Your task to perform on an android device: snooze an email in the gmail app Image 0: 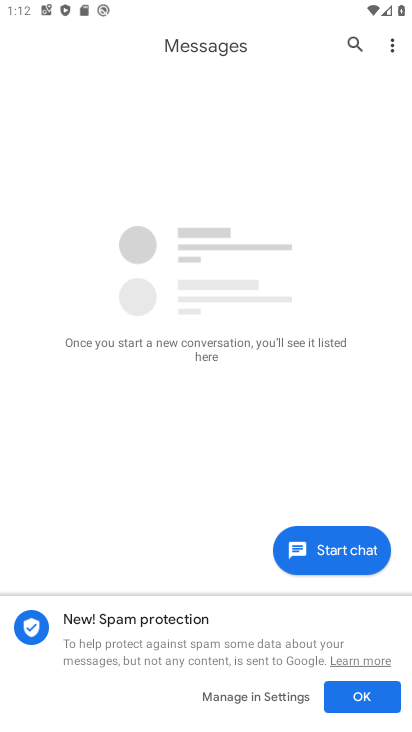
Step 0: click (368, 698)
Your task to perform on an android device: snooze an email in the gmail app Image 1: 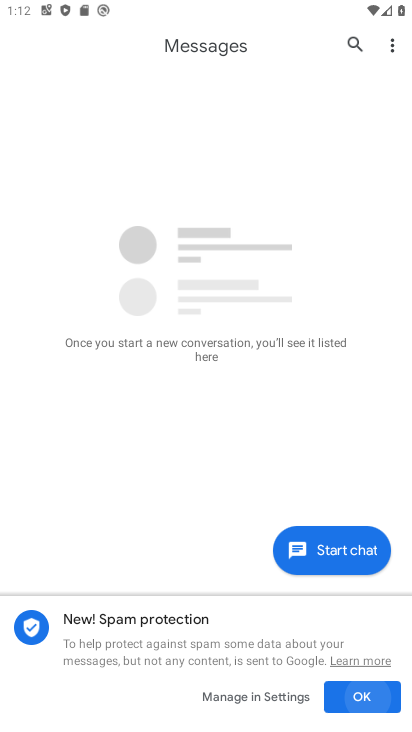
Step 1: click (366, 696)
Your task to perform on an android device: snooze an email in the gmail app Image 2: 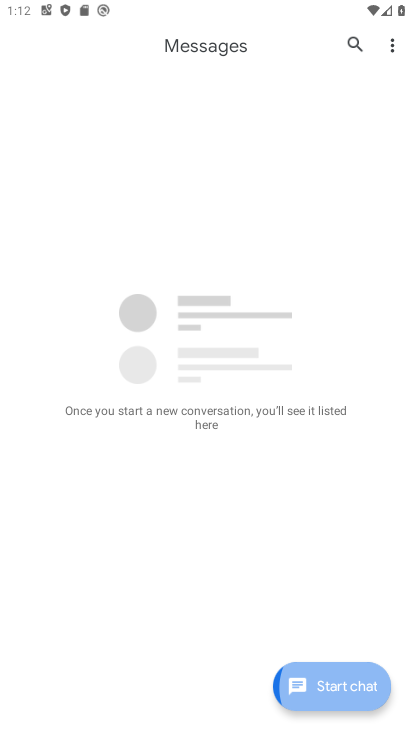
Step 2: click (365, 695)
Your task to perform on an android device: snooze an email in the gmail app Image 3: 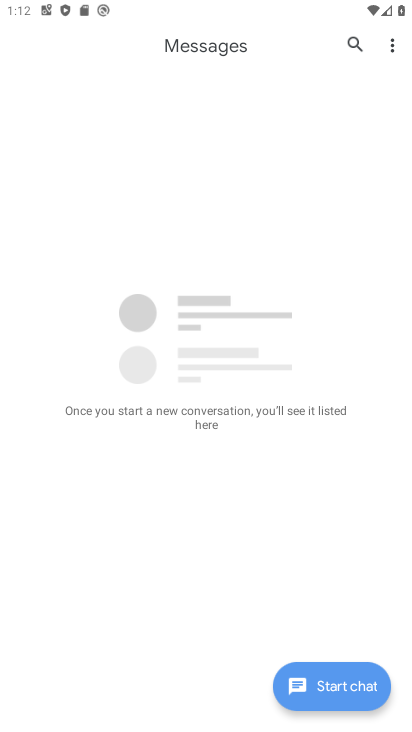
Step 3: click (364, 694)
Your task to perform on an android device: snooze an email in the gmail app Image 4: 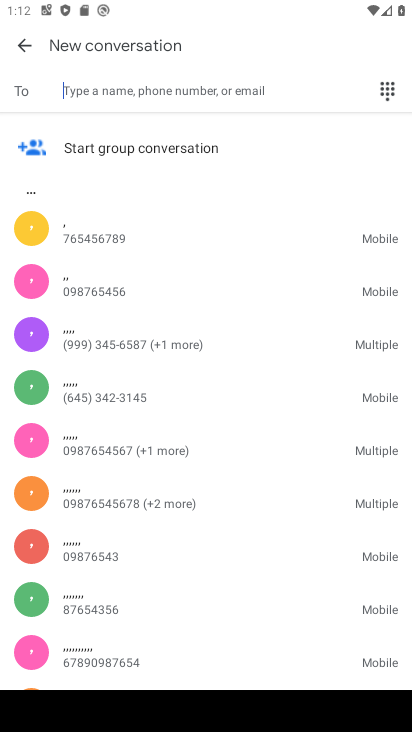
Step 4: press back button
Your task to perform on an android device: snooze an email in the gmail app Image 5: 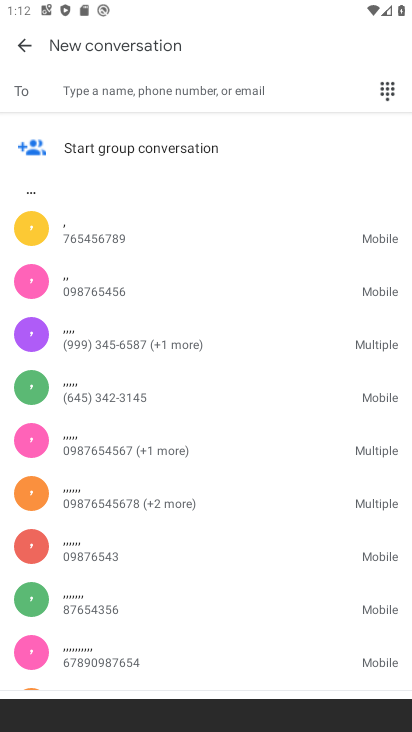
Step 5: press back button
Your task to perform on an android device: snooze an email in the gmail app Image 6: 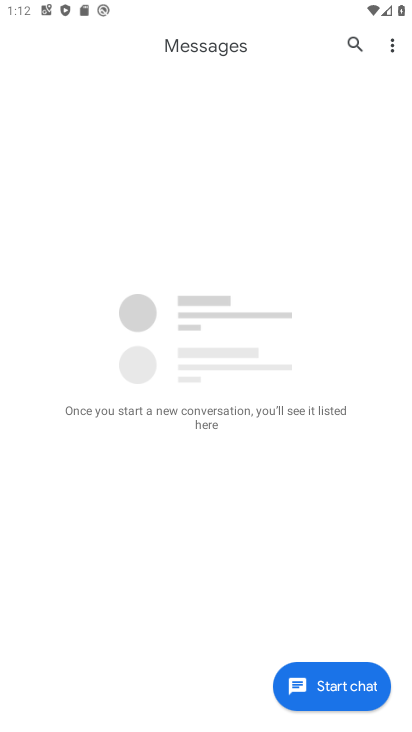
Step 6: press back button
Your task to perform on an android device: snooze an email in the gmail app Image 7: 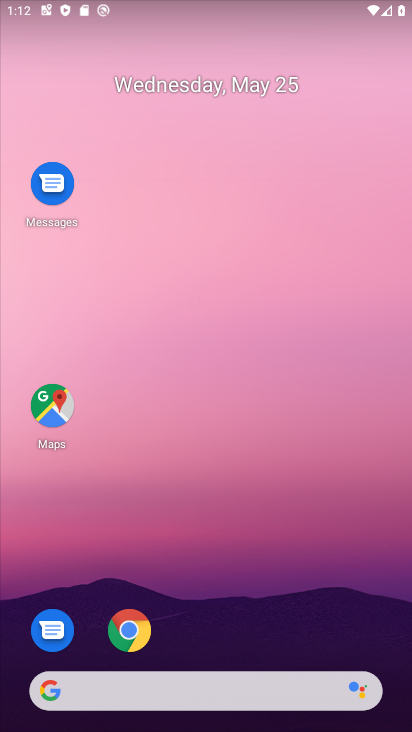
Step 7: drag from (312, 629) to (100, 72)
Your task to perform on an android device: snooze an email in the gmail app Image 8: 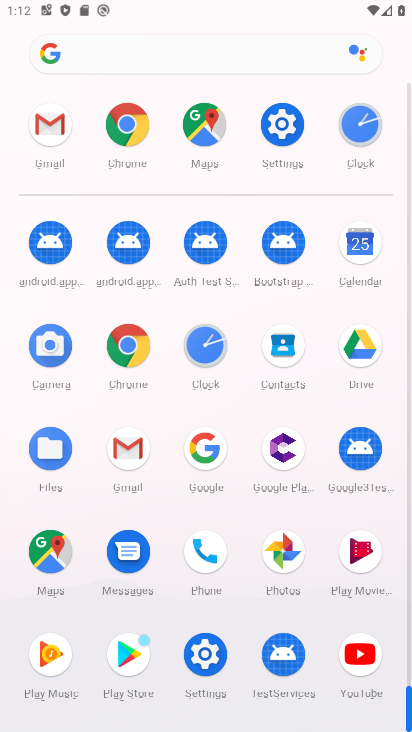
Step 8: click (127, 451)
Your task to perform on an android device: snooze an email in the gmail app Image 9: 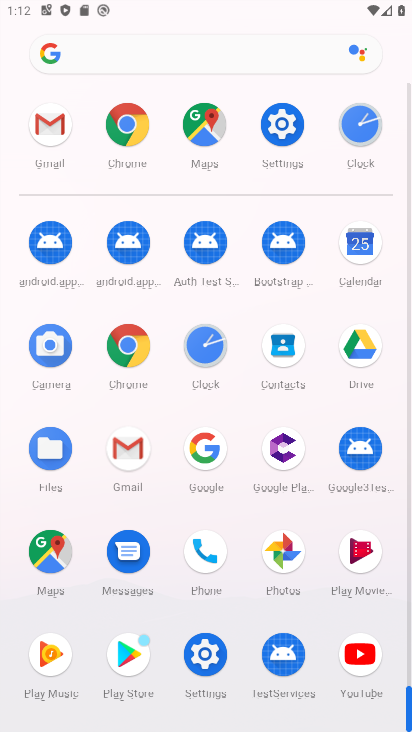
Step 9: click (126, 450)
Your task to perform on an android device: snooze an email in the gmail app Image 10: 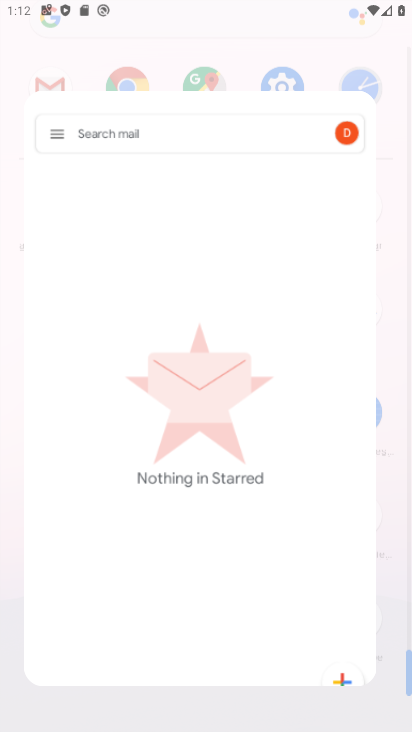
Step 10: click (126, 450)
Your task to perform on an android device: snooze an email in the gmail app Image 11: 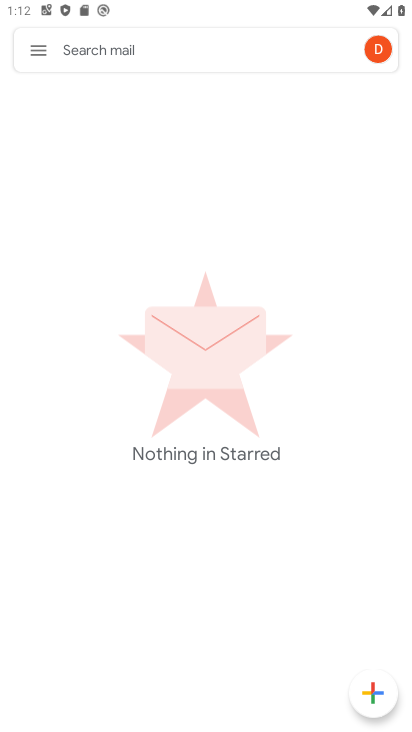
Step 11: click (126, 449)
Your task to perform on an android device: snooze an email in the gmail app Image 12: 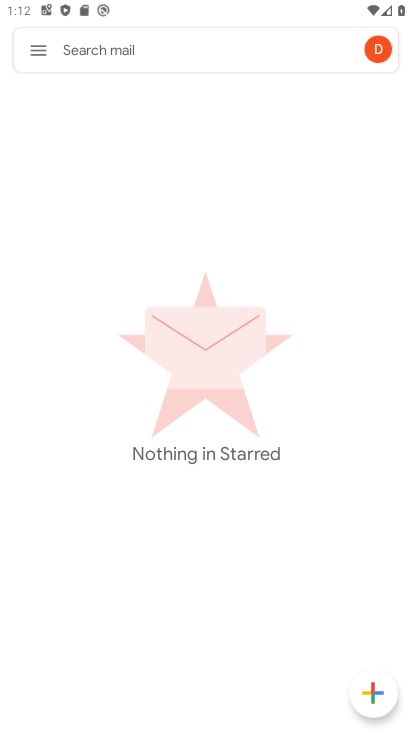
Step 12: click (126, 445)
Your task to perform on an android device: snooze an email in the gmail app Image 13: 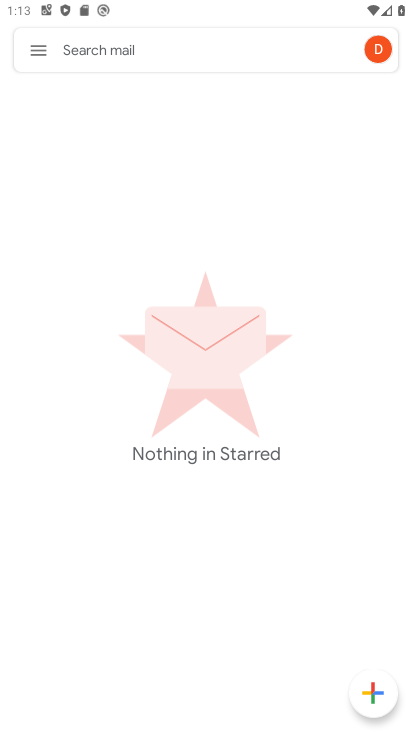
Step 13: click (38, 48)
Your task to perform on an android device: snooze an email in the gmail app Image 14: 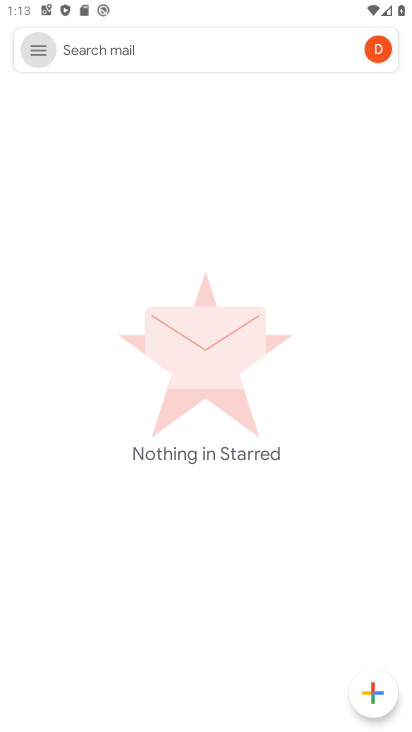
Step 14: click (39, 52)
Your task to perform on an android device: snooze an email in the gmail app Image 15: 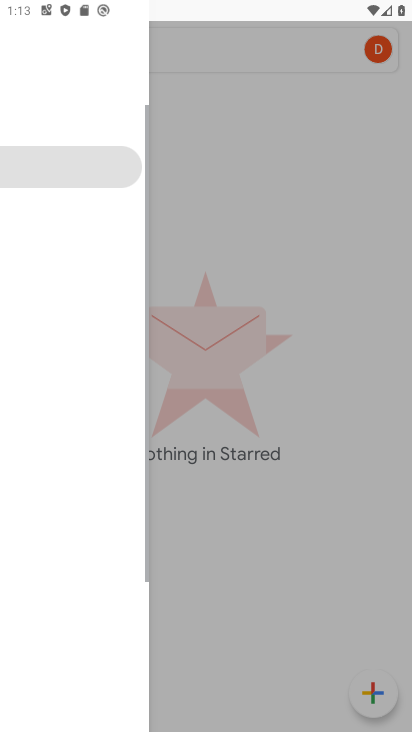
Step 15: click (37, 55)
Your task to perform on an android device: snooze an email in the gmail app Image 16: 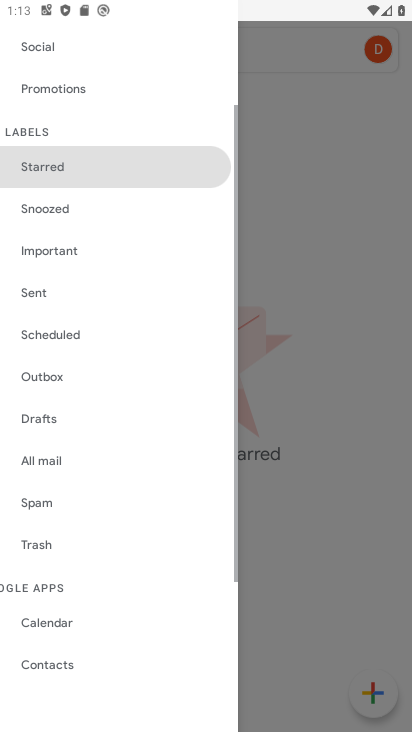
Step 16: click (36, 57)
Your task to perform on an android device: snooze an email in the gmail app Image 17: 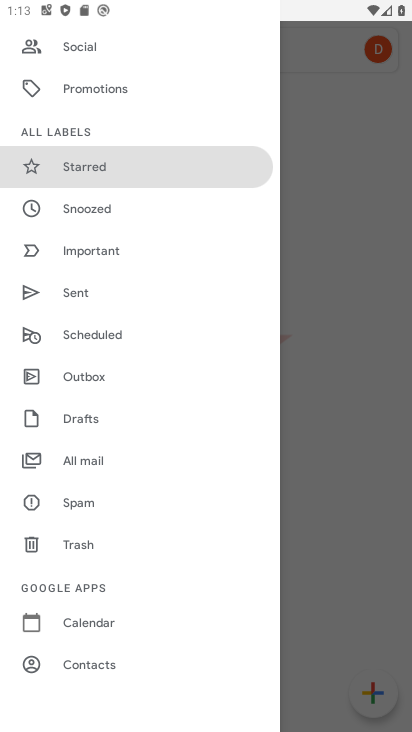
Step 17: click (90, 203)
Your task to perform on an android device: snooze an email in the gmail app Image 18: 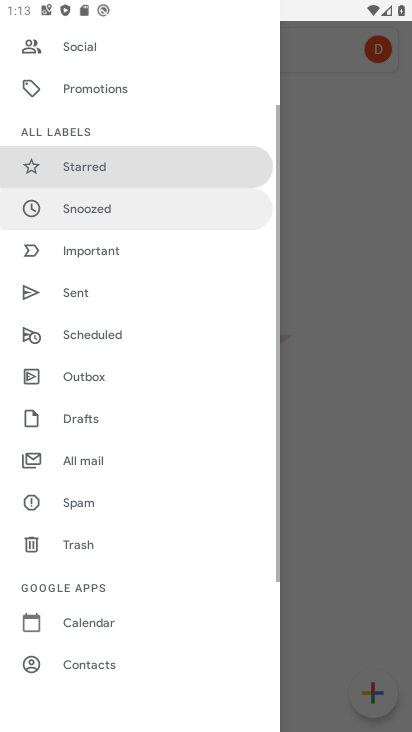
Step 18: click (90, 204)
Your task to perform on an android device: snooze an email in the gmail app Image 19: 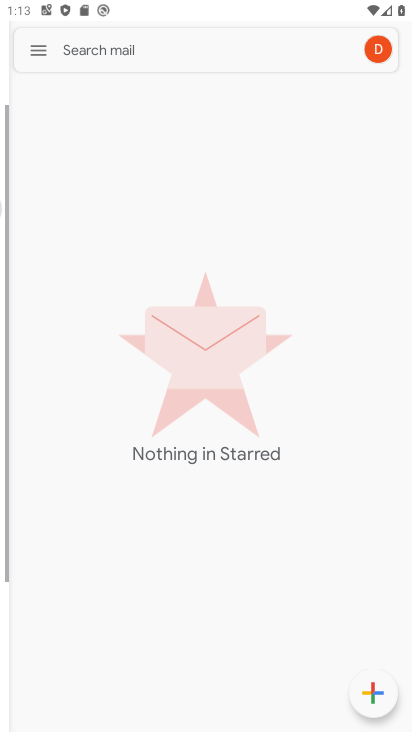
Step 19: click (77, 200)
Your task to perform on an android device: snooze an email in the gmail app Image 20: 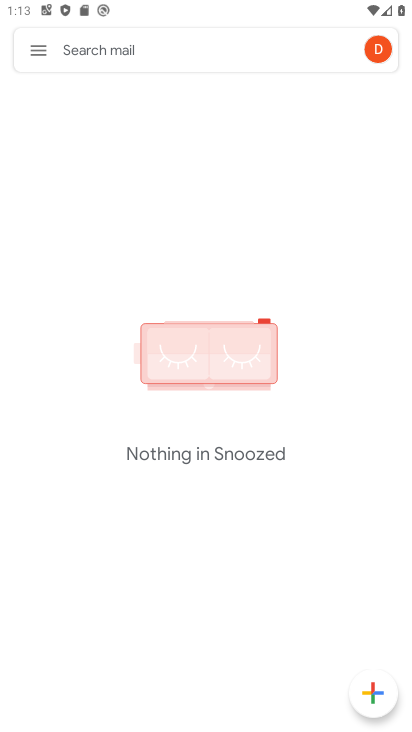
Step 20: task complete